Your task to perform on an android device: toggle airplane mode Image 0: 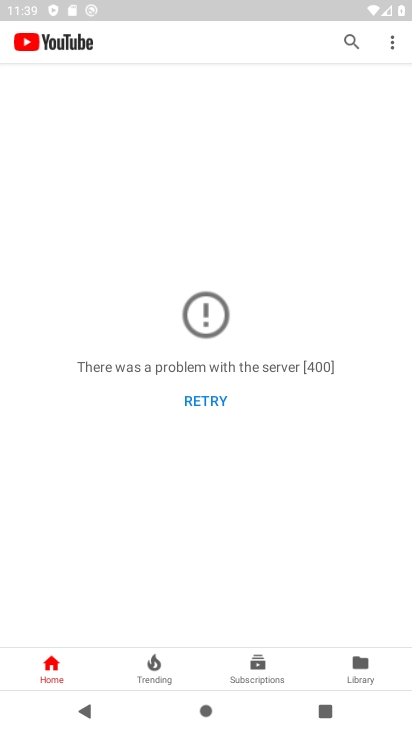
Step 0: press home button
Your task to perform on an android device: toggle airplane mode Image 1: 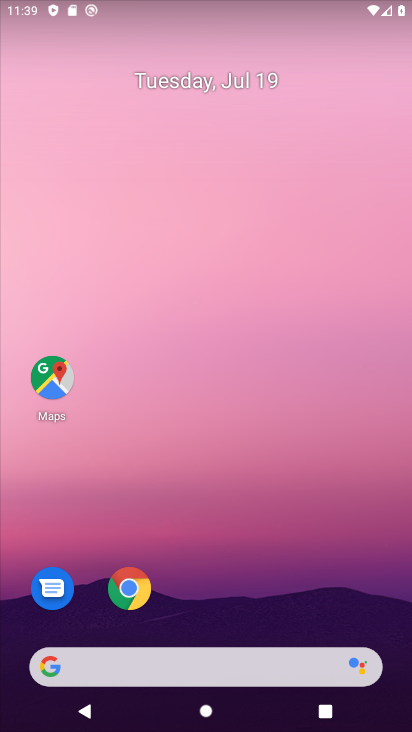
Step 1: drag from (310, 600) to (311, 241)
Your task to perform on an android device: toggle airplane mode Image 2: 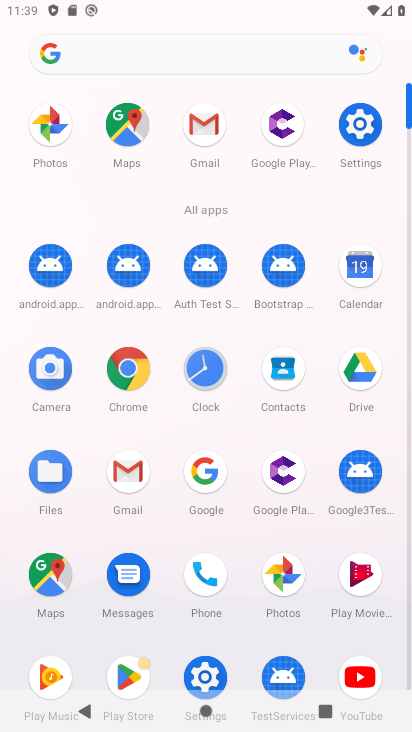
Step 2: click (358, 112)
Your task to perform on an android device: toggle airplane mode Image 3: 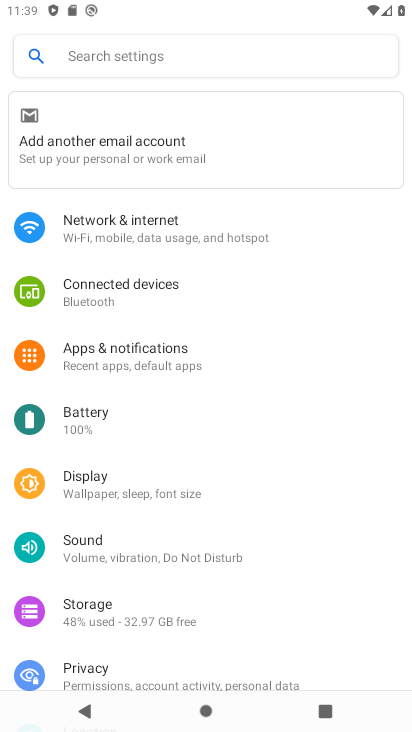
Step 3: click (97, 225)
Your task to perform on an android device: toggle airplane mode Image 4: 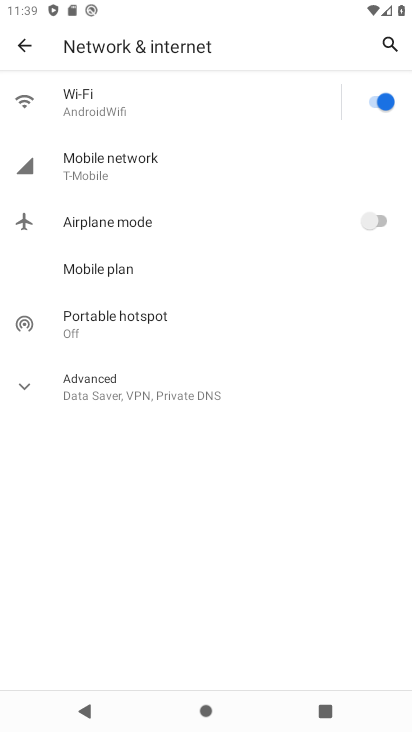
Step 4: click (366, 213)
Your task to perform on an android device: toggle airplane mode Image 5: 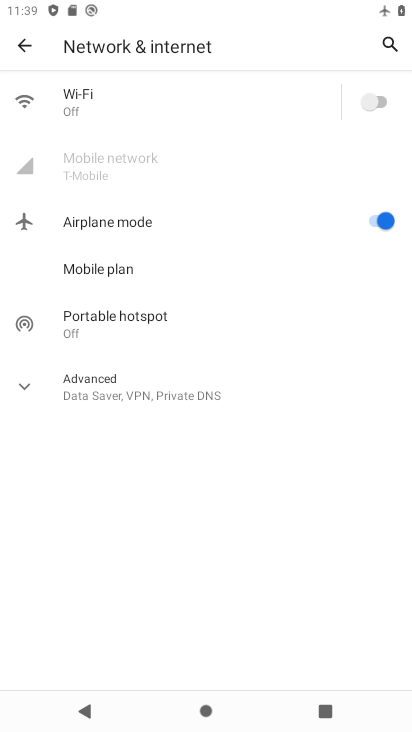
Step 5: task complete